Your task to perform on an android device: Open the phone app and click the voicemail tab. Image 0: 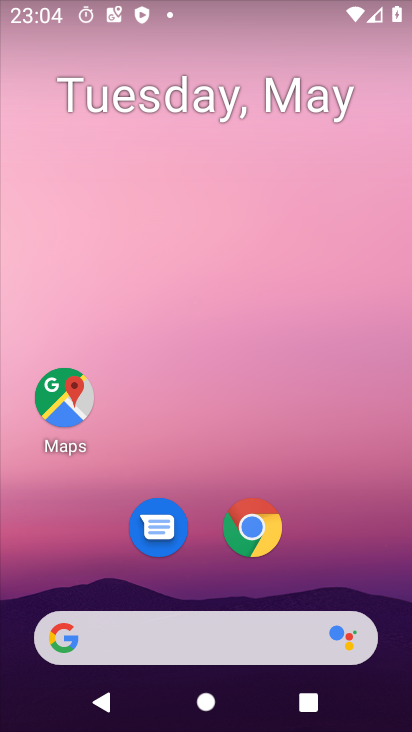
Step 0: drag from (216, 485) to (35, 0)
Your task to perform on an android device: Open the phone app and click the voicemail tab. Image 1: 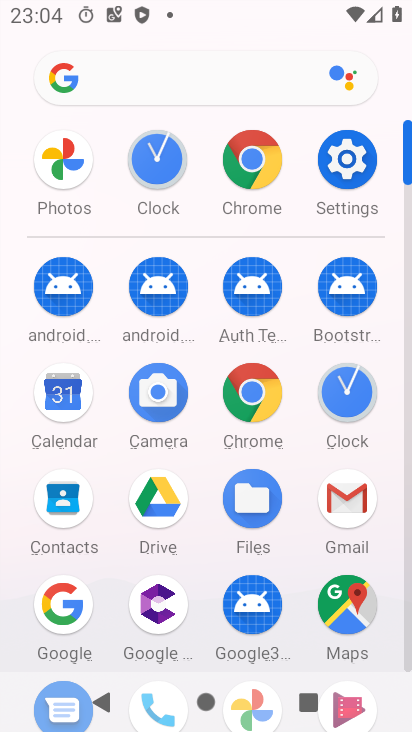
Step 1: drag from (193, 627) to (225, 153)
Your task to perform on an android device: Open the phone app and click the voicemail tab. Image 2: 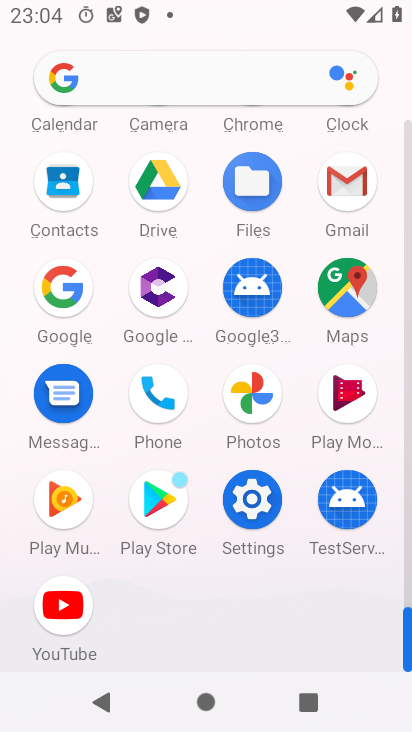
Step 2: click (161, 408)
Your task to perform on an android device: Open the phone app and click the voicemail tab. Image 3: 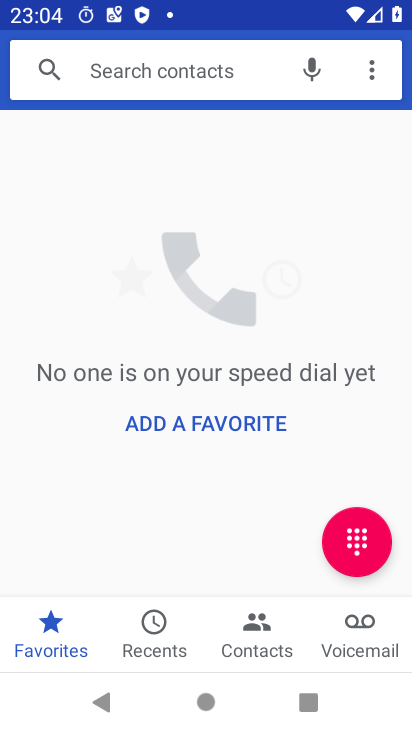
Step 3: click (359, 636)
Your task to perform on an android device: Open the phone app and click the voicemail tab. Image 4: 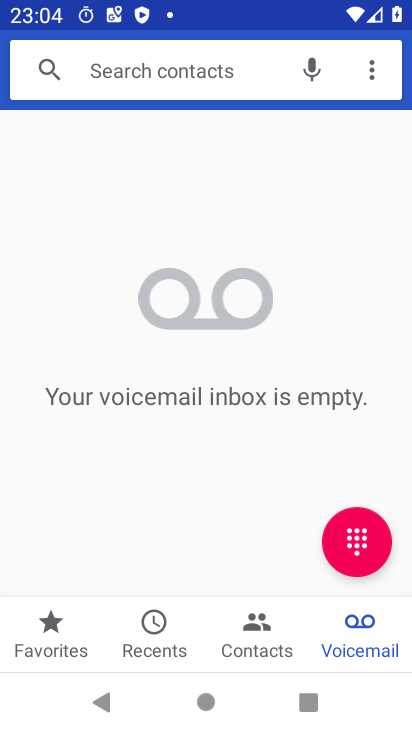
Step 4: task complete